Your task to perform on an android device: allow notifications from all sites in the chrome app Image 0: 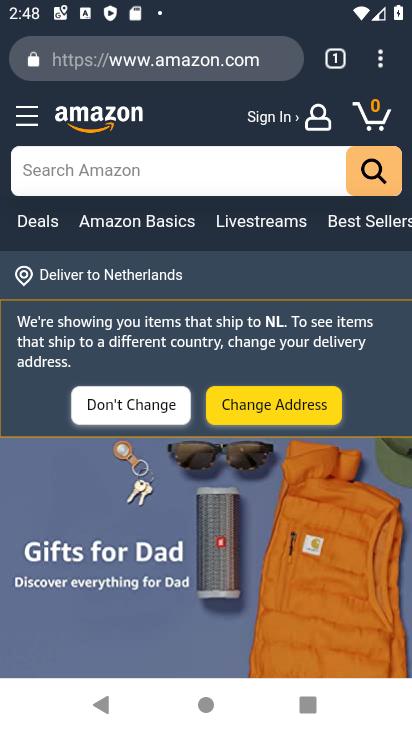
Step 0: click (375, 52)
Your task to perform on an android device: allow notifications from all sites in the chrome app Image 1: 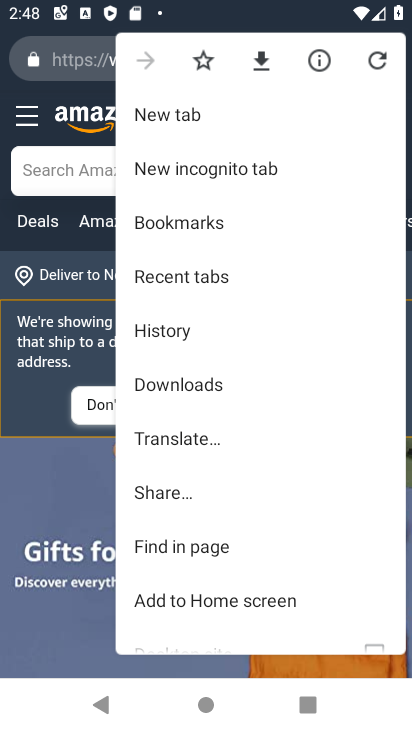
Step 1: click (207, 492)
Your task to perform on an android device: allow notifications from all sites in the chrome app Image 2: 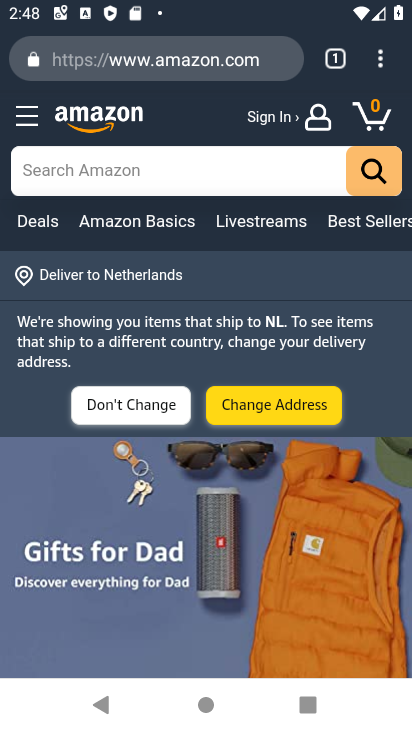
Step 2: task complete